Your task to perform on an android device: check data usage Image 0: 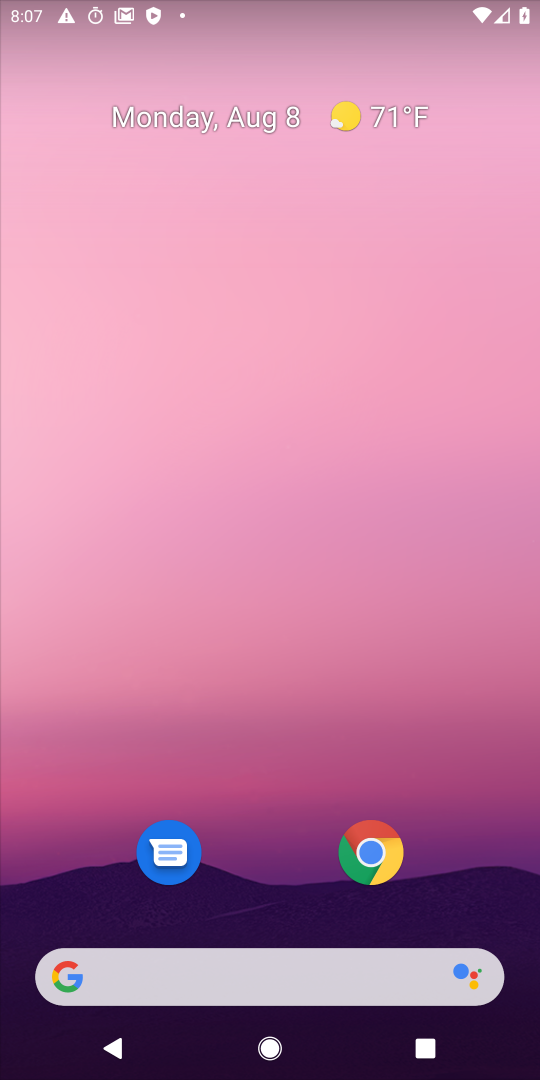
Step 0: drag from (52, 818) to (379, 10)
Your task to perform on an android device: check data usage Image 1: 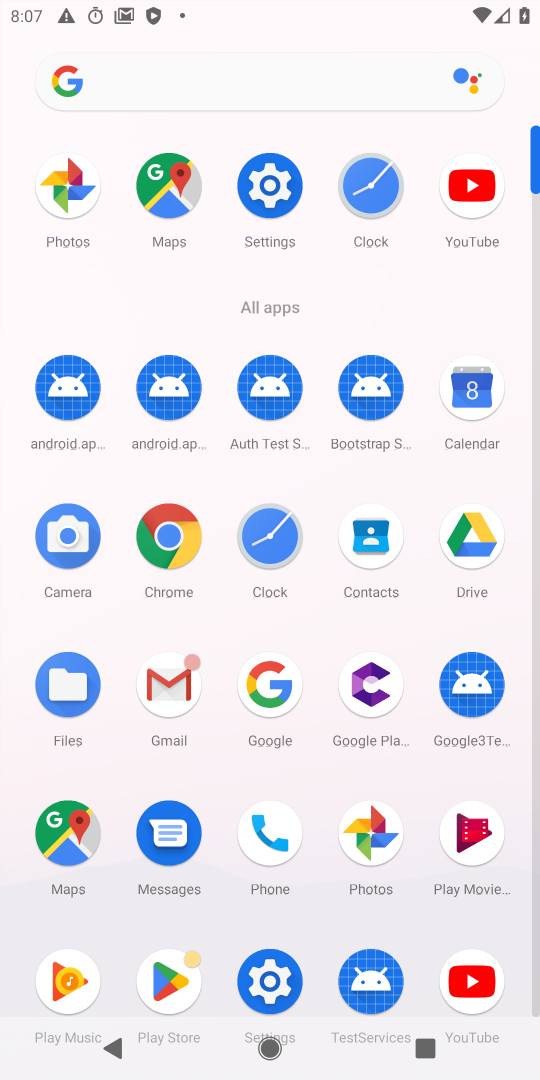
Step 1: click (255, 201)
Your task to perform on an android device: check data usage Image 2: 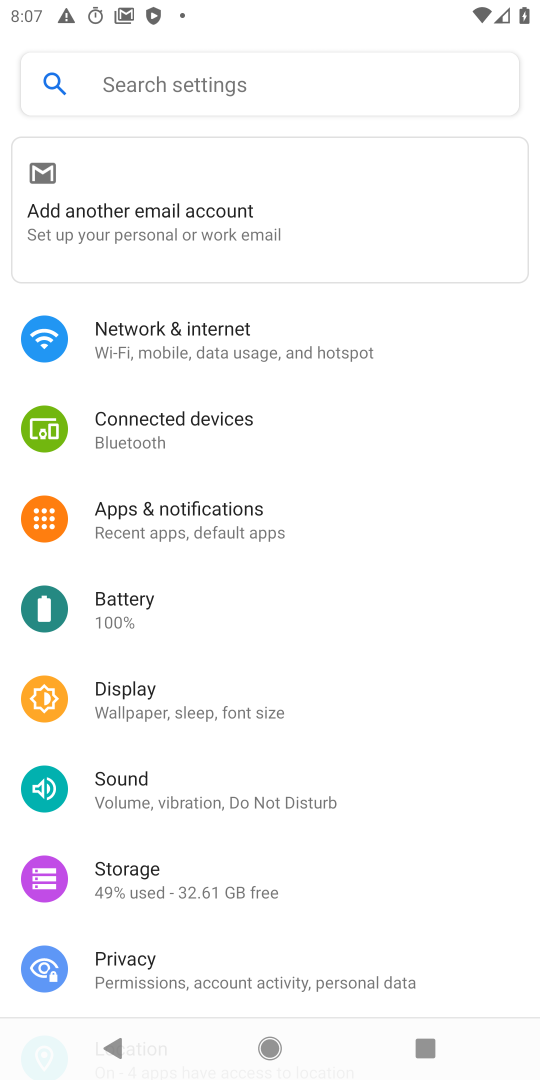
Step 2: click (208, 349)
Your task to perform on an android device: check data usage Image 3: 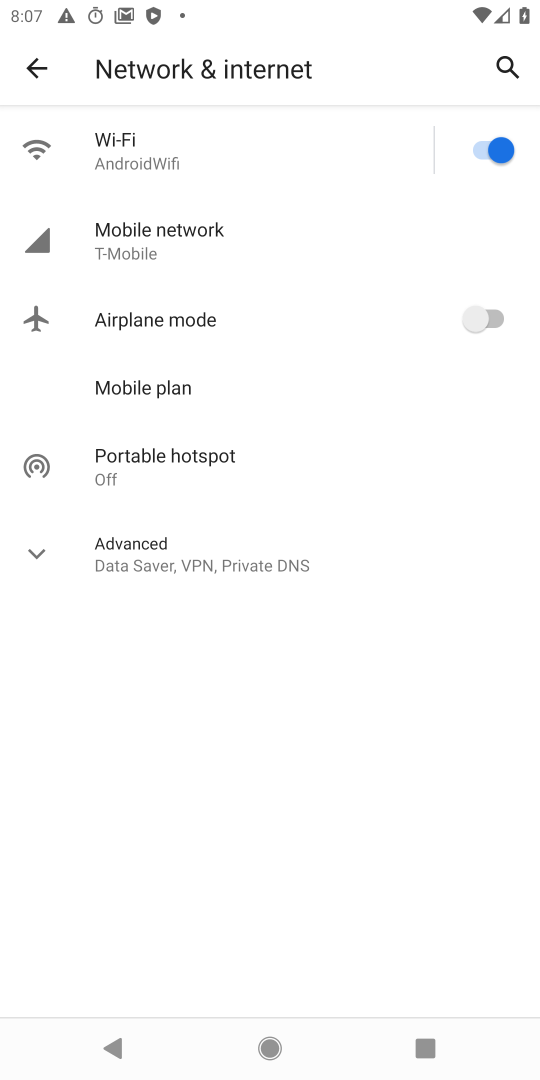
Step 3: click (286, 231)
Your task to perform on an android device: check data usage Image 4: 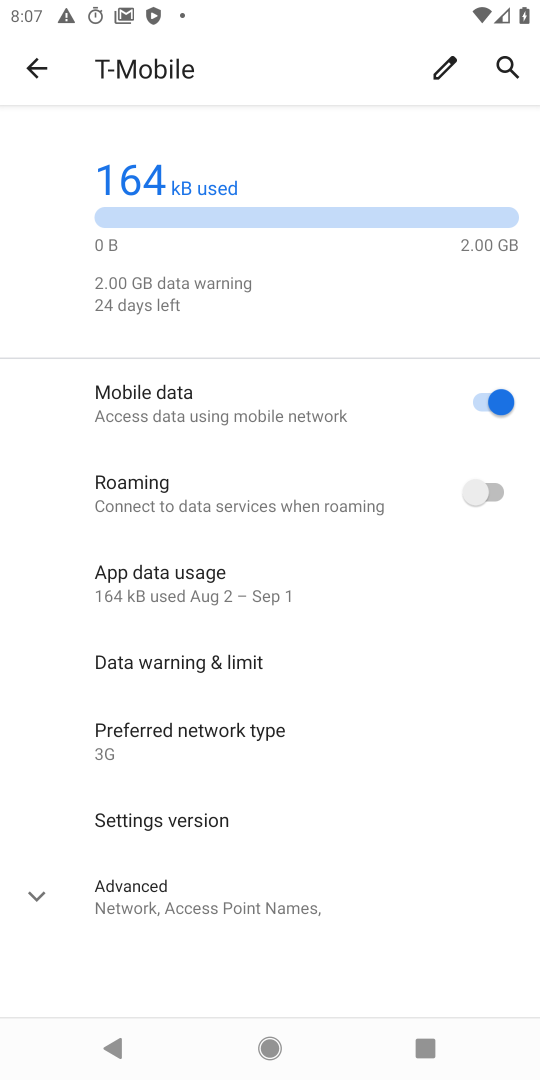
Step 4: task complete